Your task to perform on an android device: see sites visited before in the chrome app Image 0: 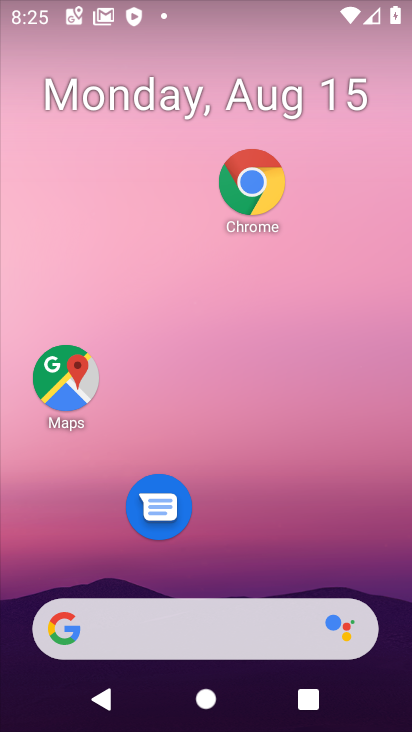
Step 0: click (239, 218)
Your task to perform on an android device: see sites visited before in the chrome app Image 1: 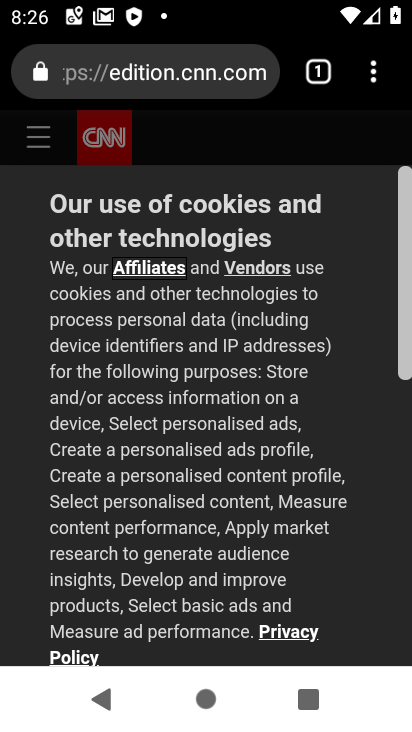
Step 1: click (355, 78)
Your task to perform on an android device: see sites visited before in the chrome app Image 2: 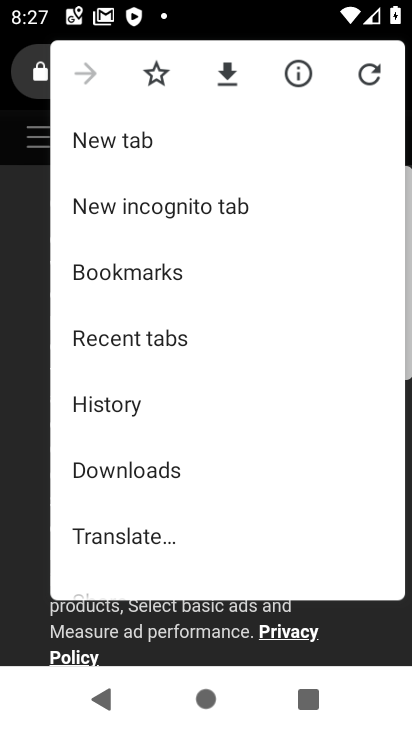
Step 2: task complete